Your task to perform on an android device: Go to Google maps Image 0: 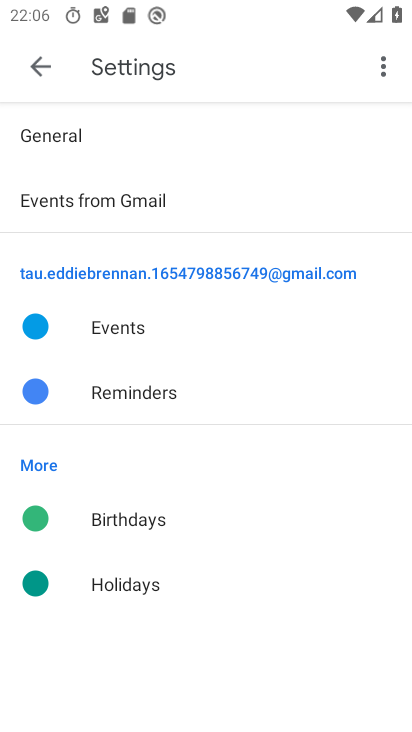
Step 0: press home button
Your task to perform on an android device: Go to Google maps Image 1: 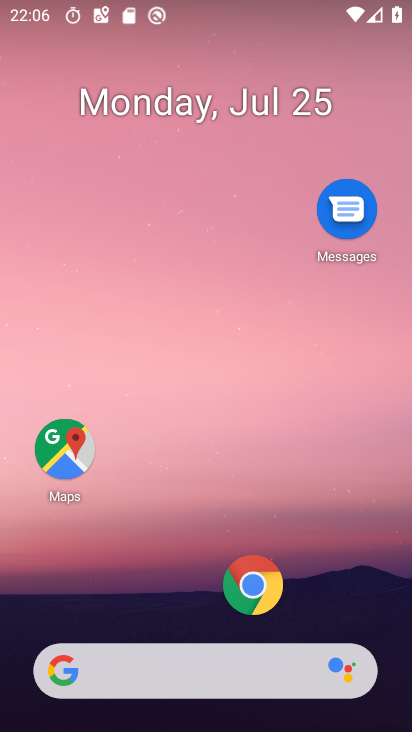
Step 1: drag from (140, 672) to (259, 209)
Your task to perform on an android device: Go to Google maps Image 2: 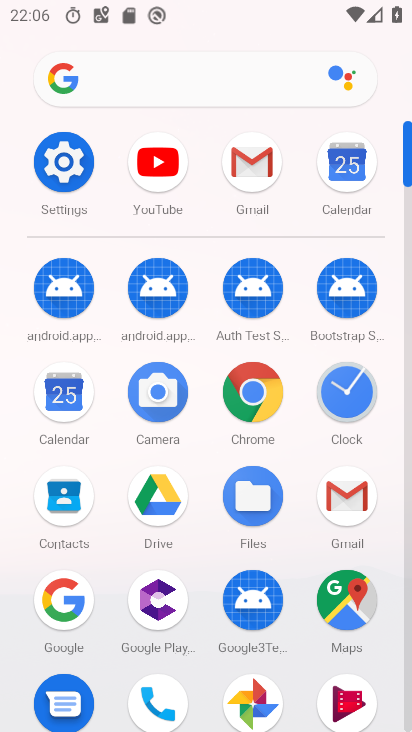
Step 2: click (348, 600)
Your task to perform on an android device: Go to Google maps Image 3: 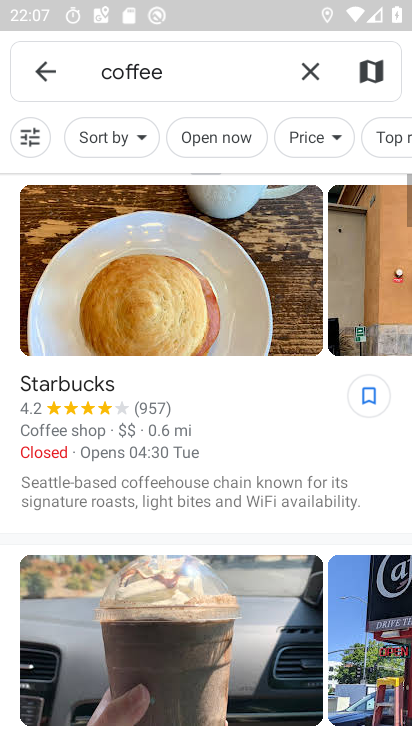
Step 3: click (46, 70)
Your task to perform on an android device: Go to Google maps Image 4: 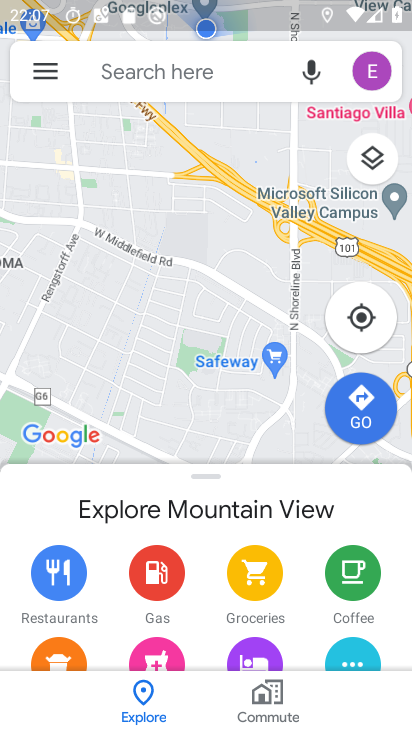
Step 4: task complete